Your task to perform on an android device: toggle wifi Image 0: 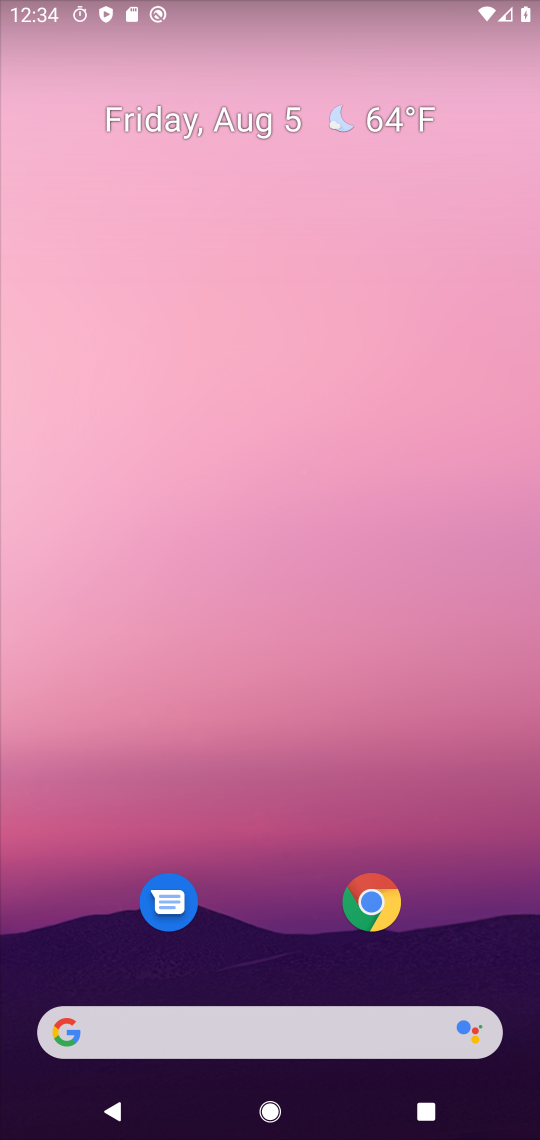
Step 0: press home button
Your task to perform on an android device: toggle wifi Image 1: 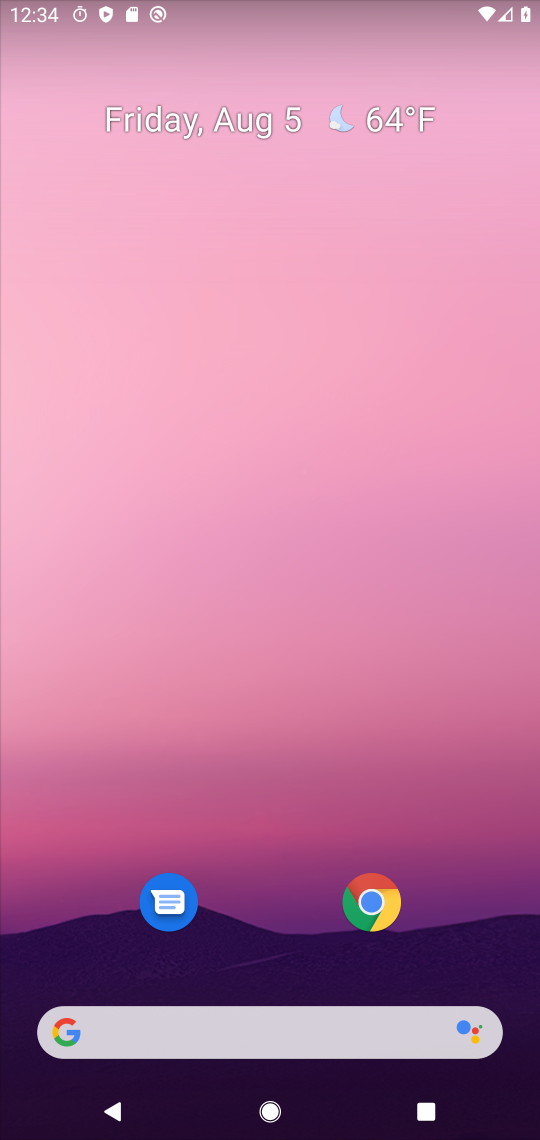
Step 1: drag from (294, 1042) to (170, 407)
Your task to perform on an android device: toggle wifi Image 2: 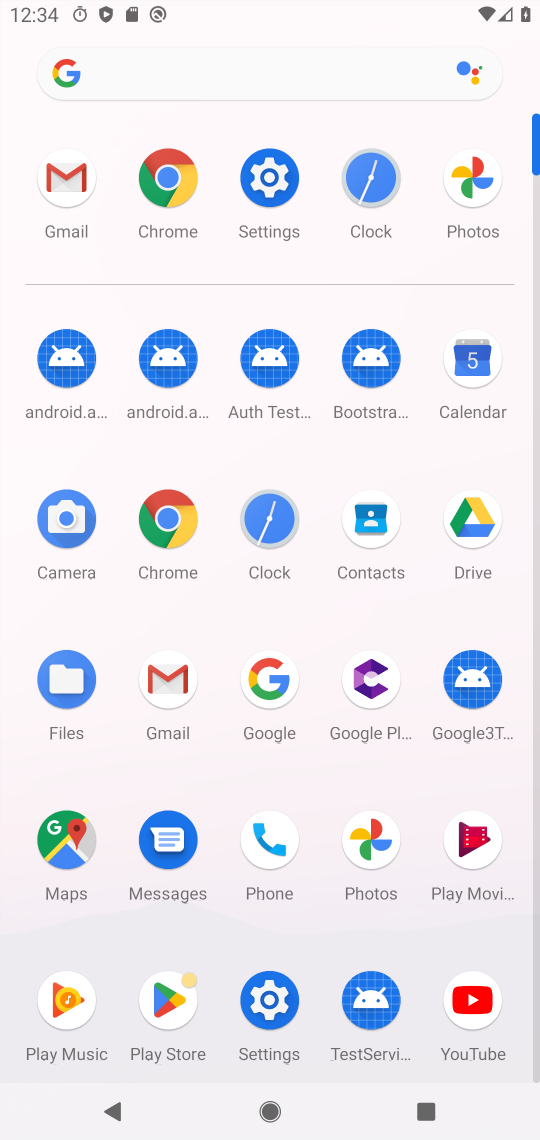
Step 2: click (260, 192)
Your task to perform on an android device: toggle wifi Image 3: 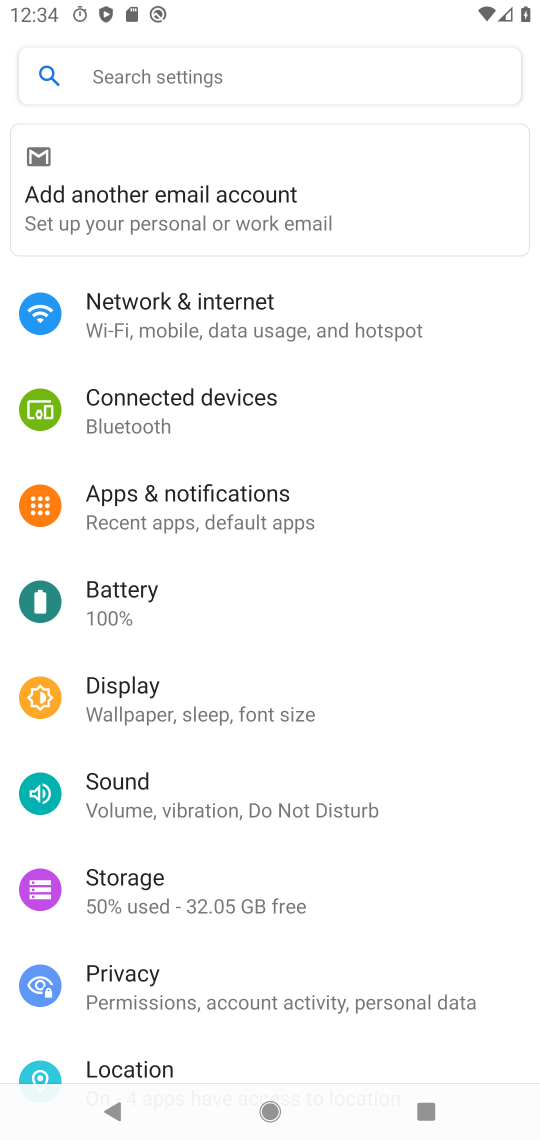
Step 3: click (231, 337)
Your task to perform on an android device: toggle wifi Image 4: 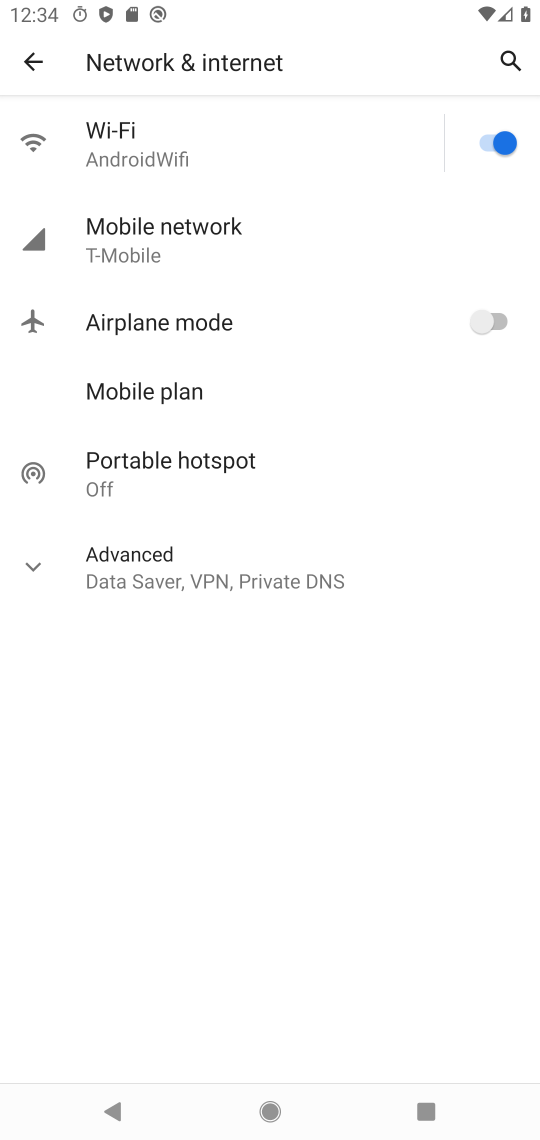
Step 4: click (248, 130)
Your task to perform on an android device: toggle wifi Image 5: 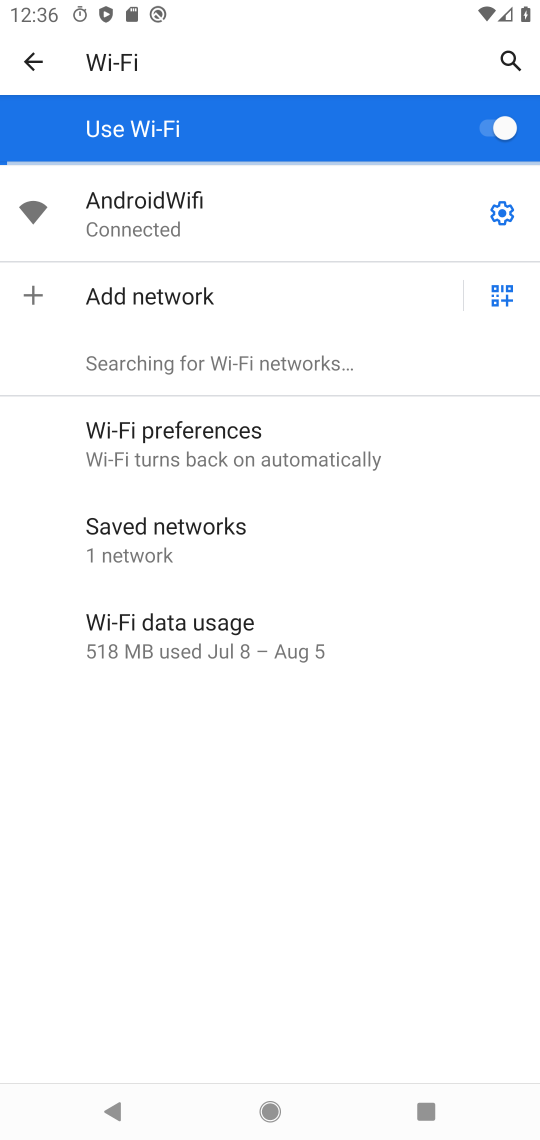
Step 5: task complete